Your task to perform on an android device: turn on the 12-hour format for clock Image 0: 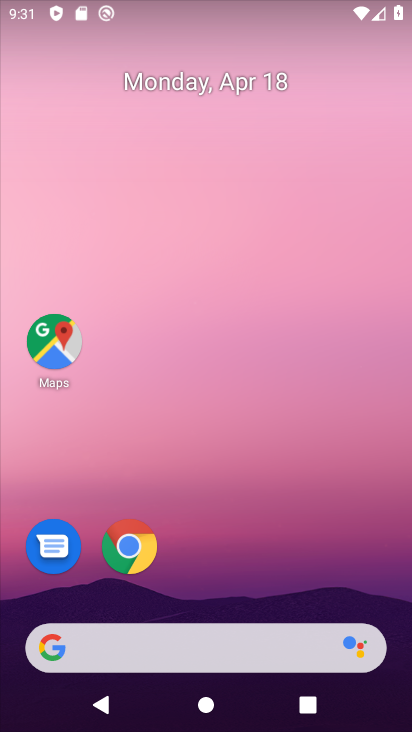
Step 0: drag from (199, 611) to (319, 144)
Your task to perform on an android device: turn on the 12-hour format for clock Image 1: 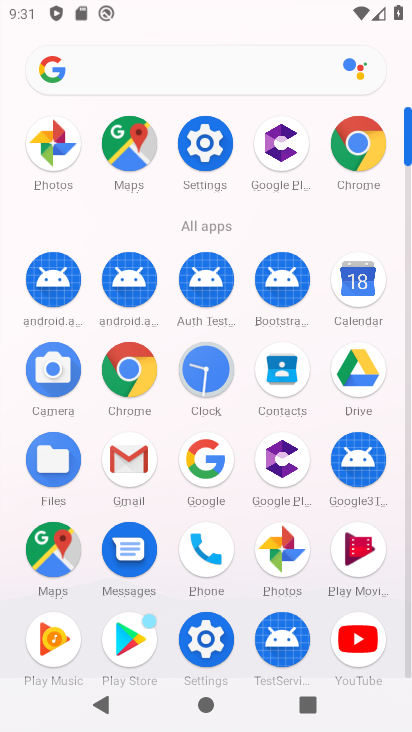
Step 1: click (203, 372)
Your task to perform on an android device: turn on the 12-hour format for clock Image 2: 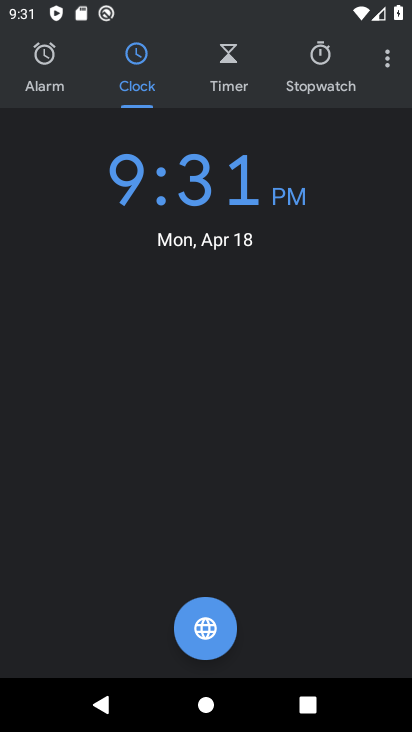
Step 2: click (381, 61)
Your task to perform on an android device: turn on the 12-hour format for clock Image 3: 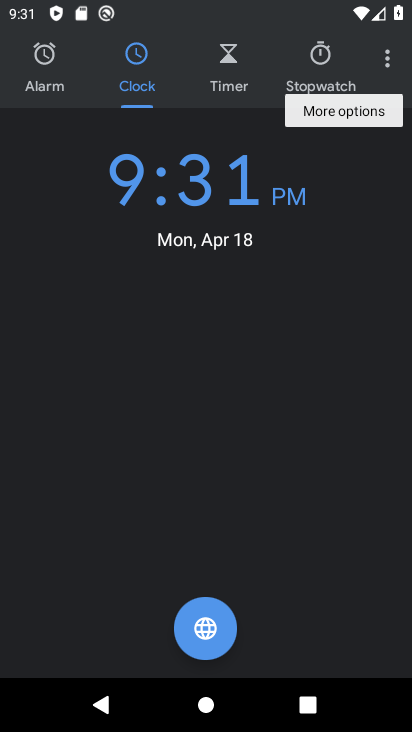
Step 3: click (370, 113)
Your task to perform on an android device: turn on the 12-hour format for clock Image 4: 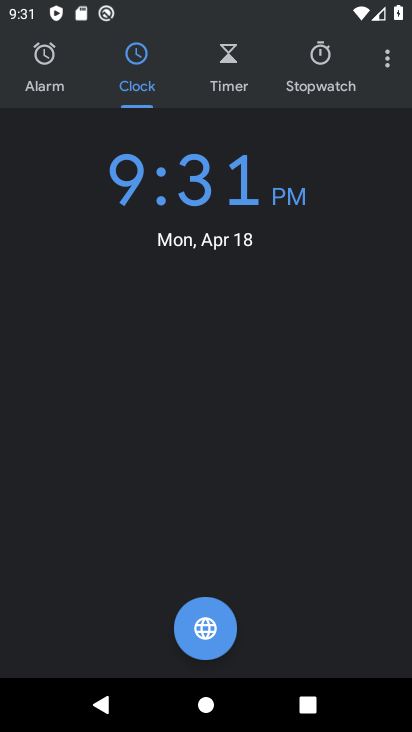
Step 4: click (401, 70)
Your task to perform on an android device: turn on the 12-hour format for clock Image 5: 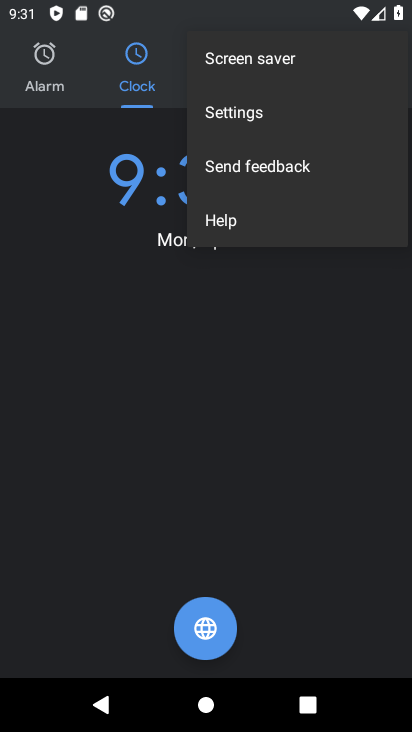
Step 5: click (294, 112)
Your task to perform on an android device: turn on the 12-hour format for clock Image 6: 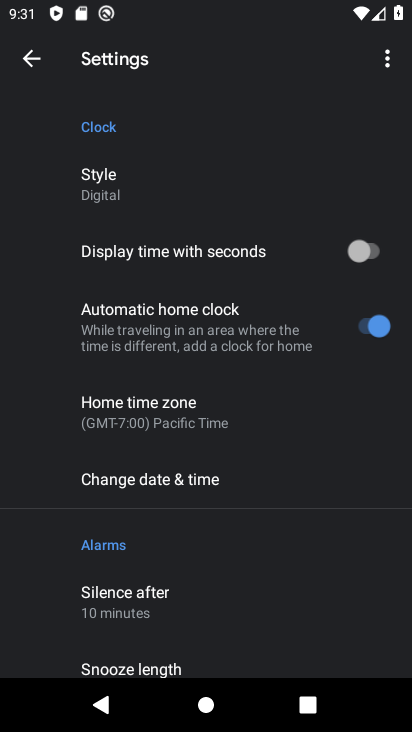
Step 6: click (239, 498)
Your task to perform on an android device: turn on the 12-hour format for clock Image 7: 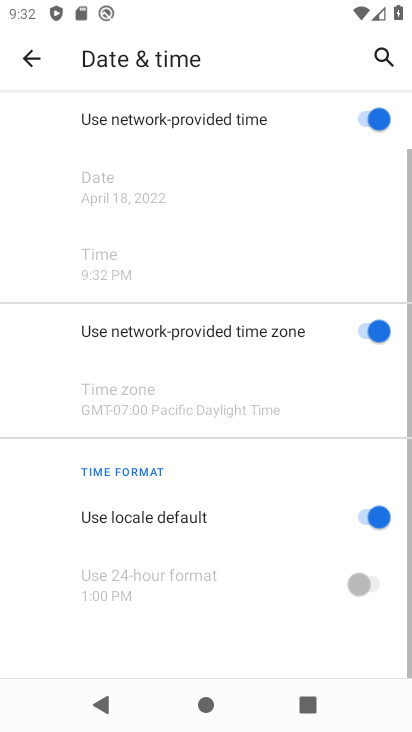
Step 7: task complete